Your task to perform on an android device: check out phone information Image 0: 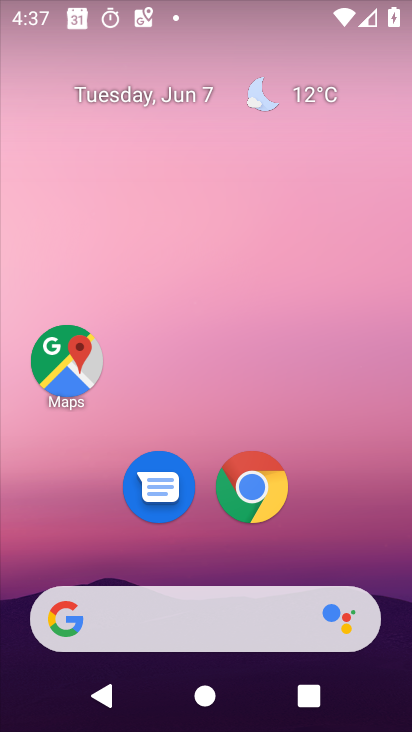
Step 0: drag from (182, 520) to (280, 48)
Your task to perform on an android device: check out phone information Image 1: 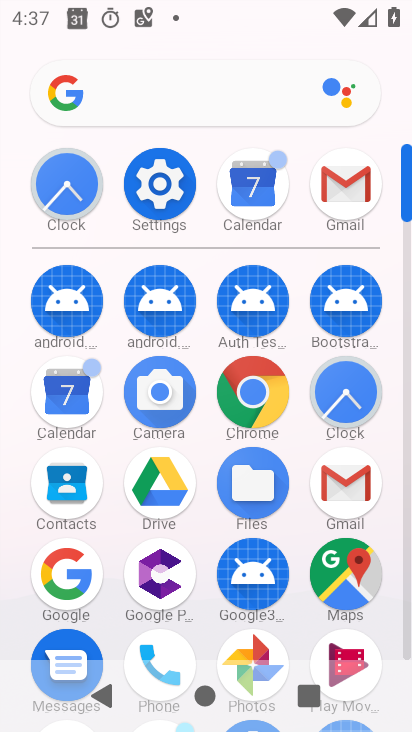
Step 1: click (155, 199)
Your task to perform on an android device: check out phone information Image 2: 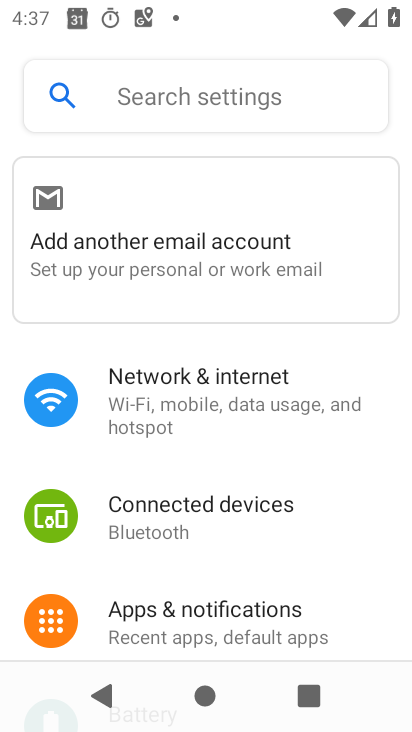
Step 2: drag from (222, 597) to (319, 130)
Your task to perform on an android device: check out phone information Image 3: 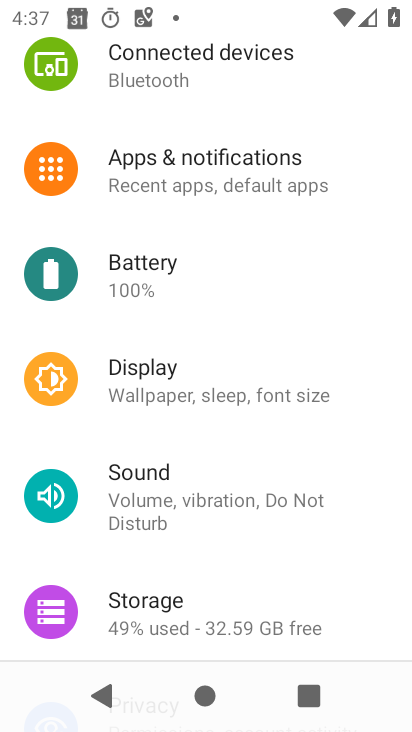
Step 3: drag from (224, 593) to (355, 85)
Your task to perform on an android device: check out phone information Image 4: 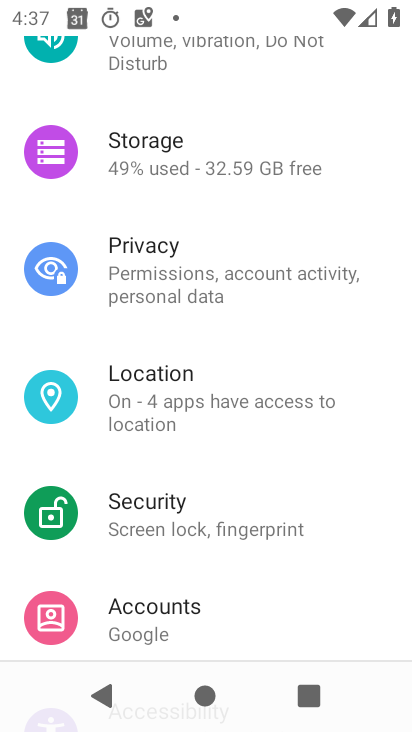
Step 4: drag from (163, 641) to (332, 8)
Your task to perform on an android device: check out phone information Image 5: 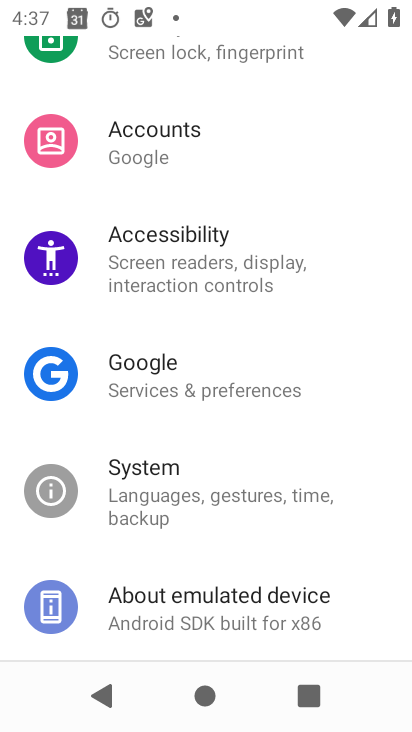
Step 5: click (198, 583)
Your task to perform on an android device: check out phone information Image 6: 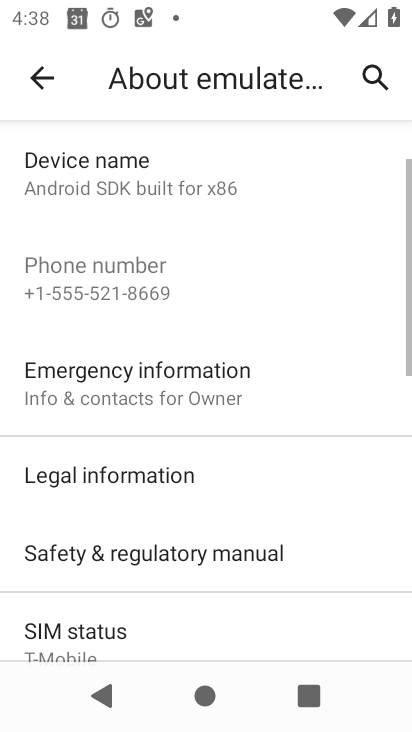
Step 6: task complete